Your task to perform on an android device: turn on location history Image 0: 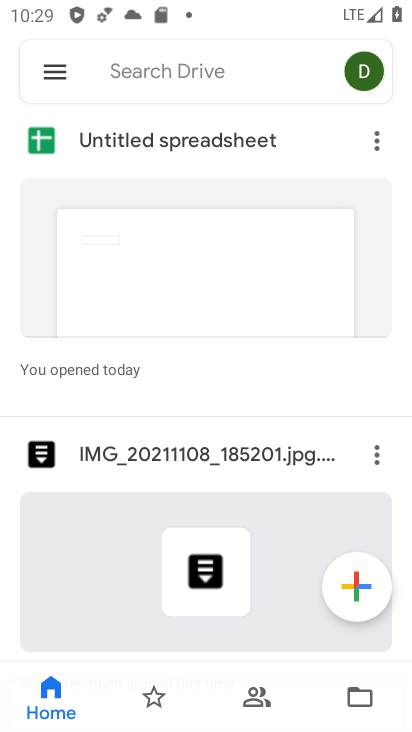
Step 0: press home button
Your task to perform on an android device: turn on location history Image 1: 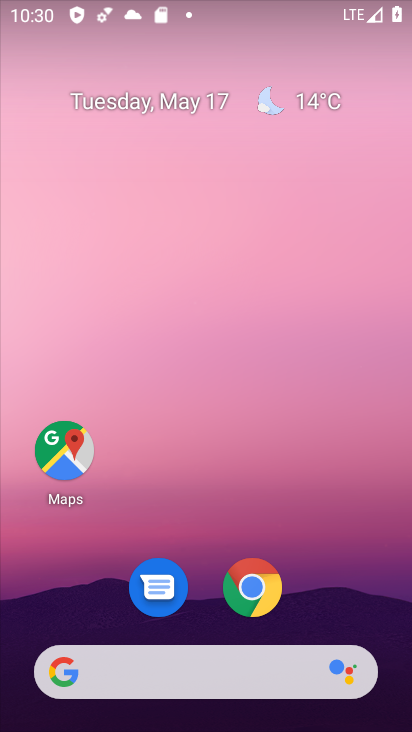
Step 1: drag from (313, 537) to (272, 202)
Your task to perform on an android device: turn on location history Image 2: 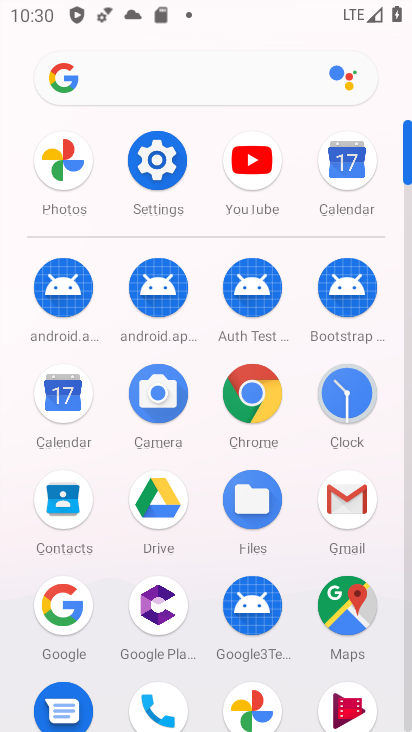
Step 2: click (176, 161)
Your task to perform on an android device: turn on location history Image 3: 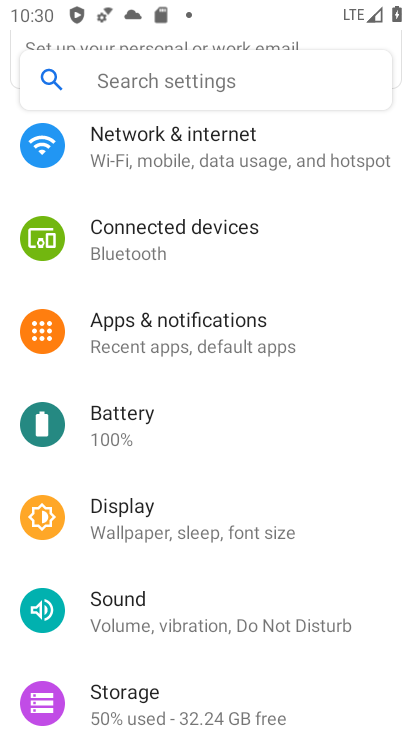
Step 3: drag from (251, 514) to (287, 181)
Your task to perform on an android device: turn on location history Image 4: 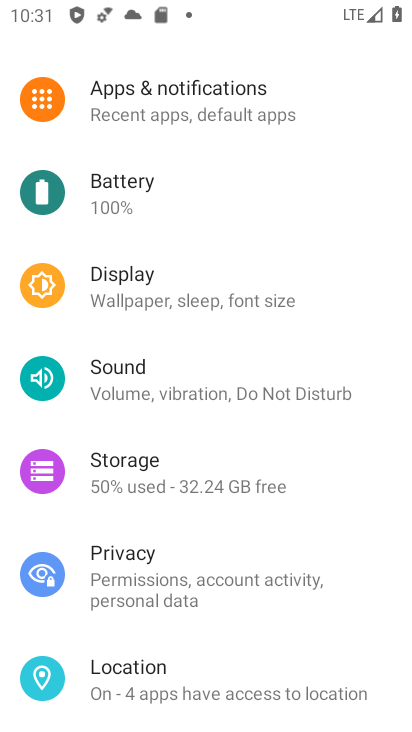
Step 4: click (167, 675)
Your task to perform on an android device: turn on location history Image 5: 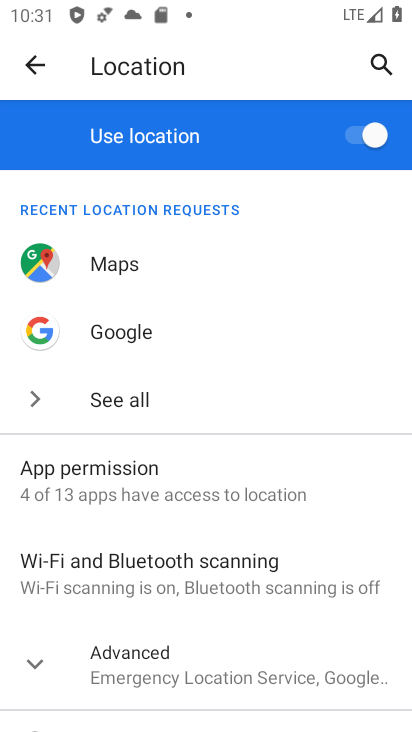
Step 5: click (167, 675)
Your task to perform on an android device: turn on location history Image 6: 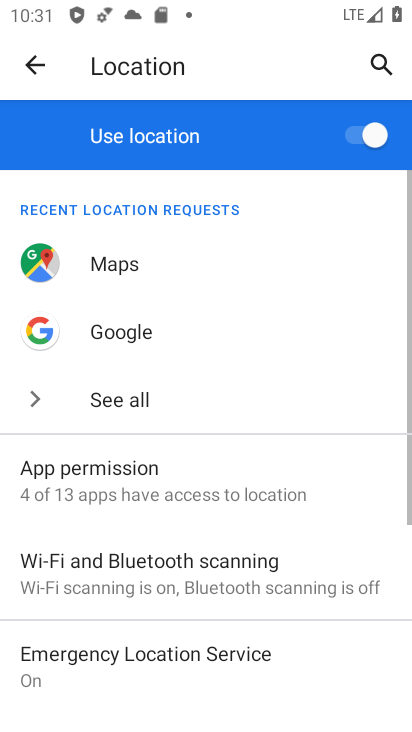
Step 6: drag from (286, 634) to (305, 344)
Your task to perform on an android device: turn on location history Image 7: 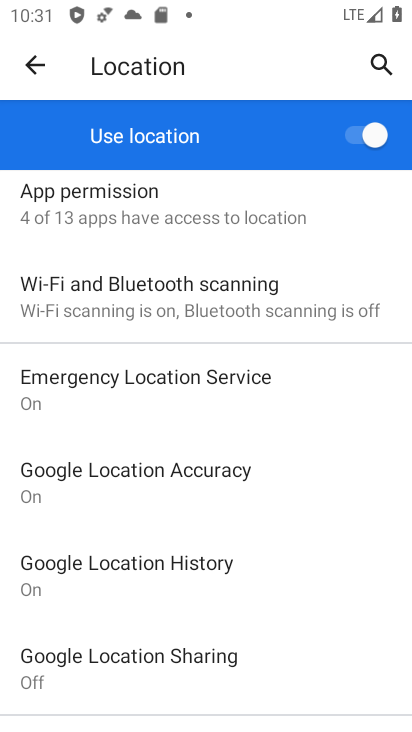
Step 7: click (140, 573)
Your task to perform on an android device: turn on location history Image 8: 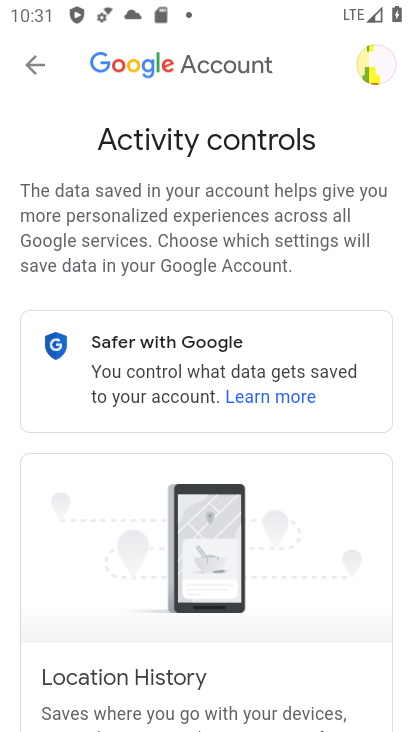
Step 8: drag from (370, 507) to (331, 244)
Your task to perform on an android device: turn on location history Image 9: 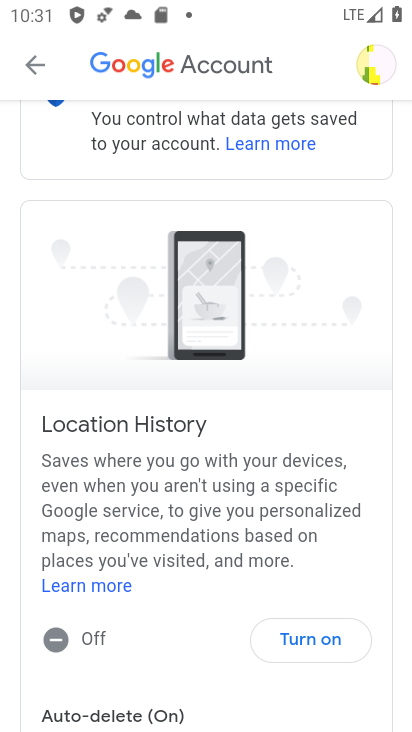
Step 9: click (326, 640)
Your task to perform on an android device: turn on location history Image 10: 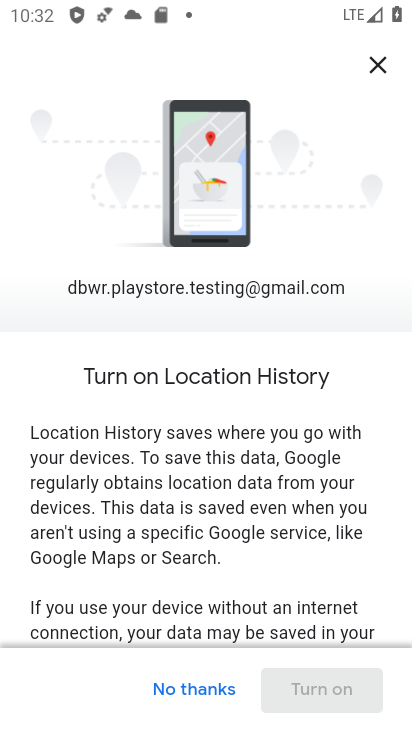
Step 10: drag from (316, 574) to (305, 323)
Your task to perform on an android device: turn on location history Image 11: 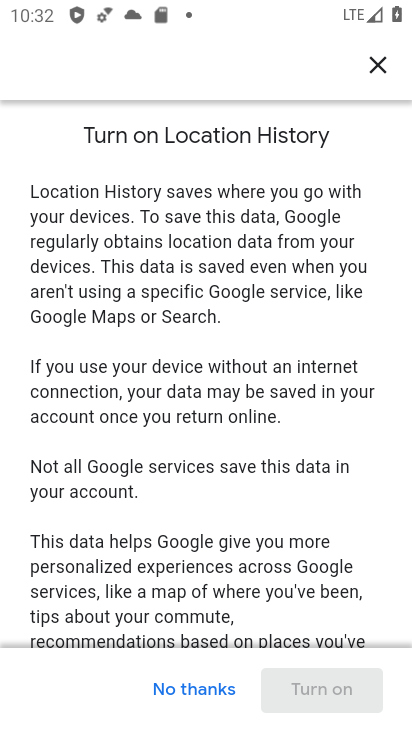
Step 11: drag from (316, 601) to (325, 240)
Your task to perform on an android device: turn on location history Image 12: 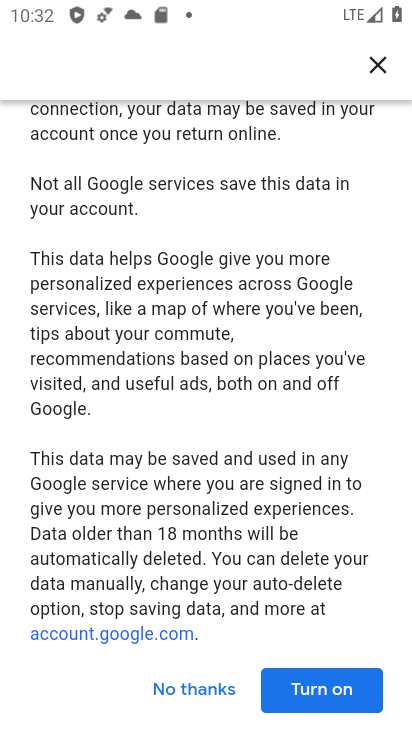
Step 12: click (314, 685)
Your task to perform on an android device: turn on location history Image 13: 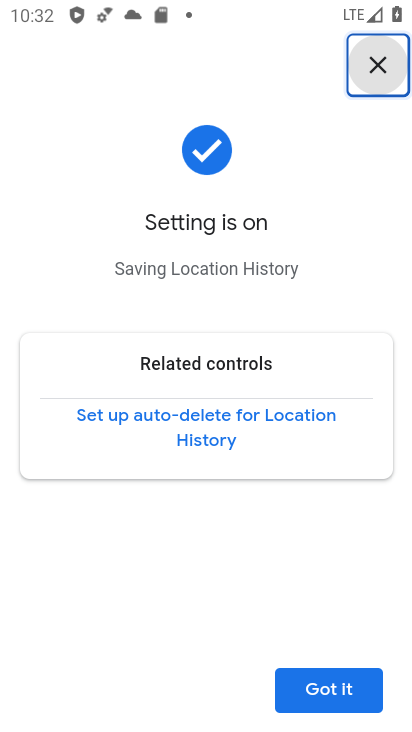
Step 13: click (314, 685)
Your task to perform on an android device: turn on location history Image 14: 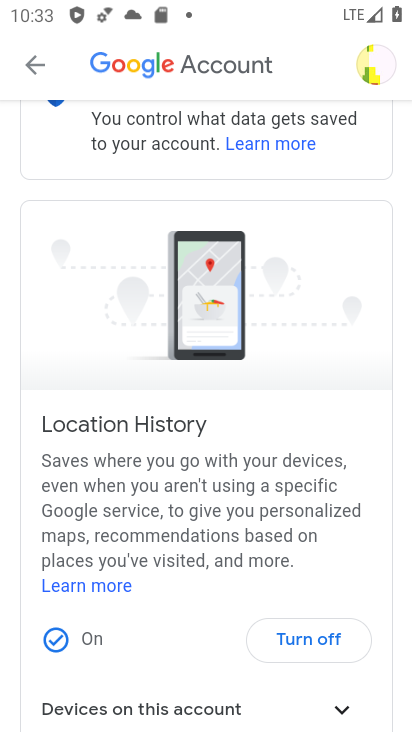
Step 14: task complete